Your task to perform on an android device: Find coffee shops on Maps Image 0: 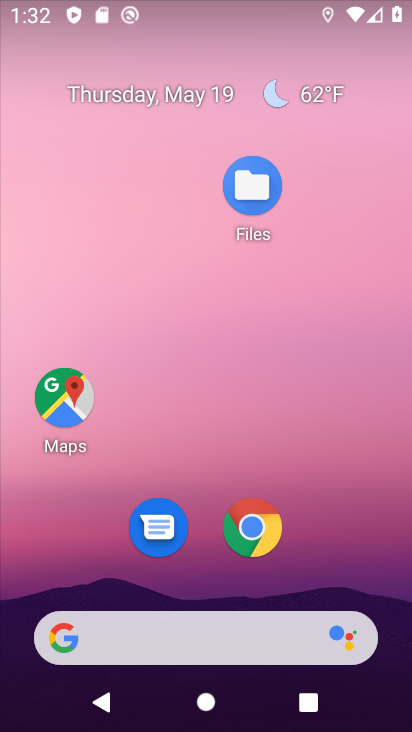
Step 0: drag from (361, 540) to (354, 104)
Your task to perform on an android device: Find coffee shops on Maps Image 1: 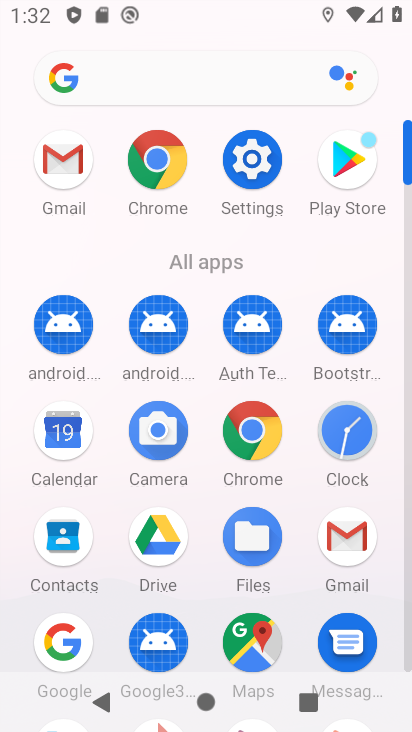
Step 1: click (250, 637)
Your task to perform on an android device: Find coffee shops on Maps Image 2: 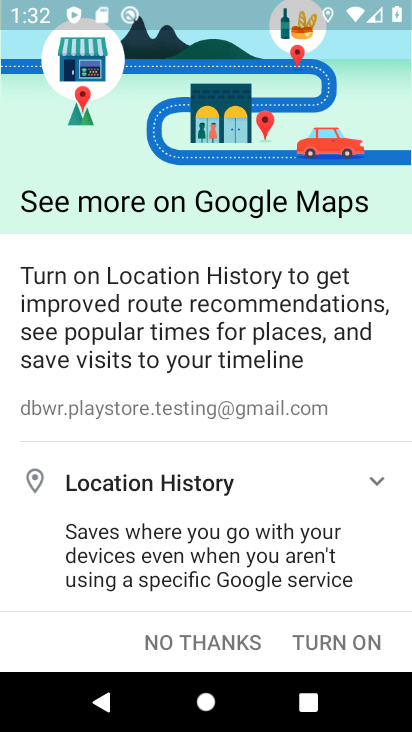
Step 2: click (182, 636)
Your task to perform on an android device: Find coffee shops on Maps Image 3: 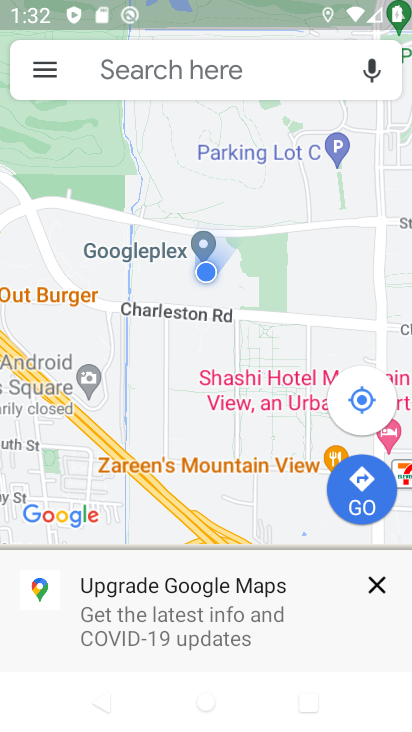
Step 3: click (233, 65)
Your task to perform on an android device: Find coffee shops on Maps Image 4: 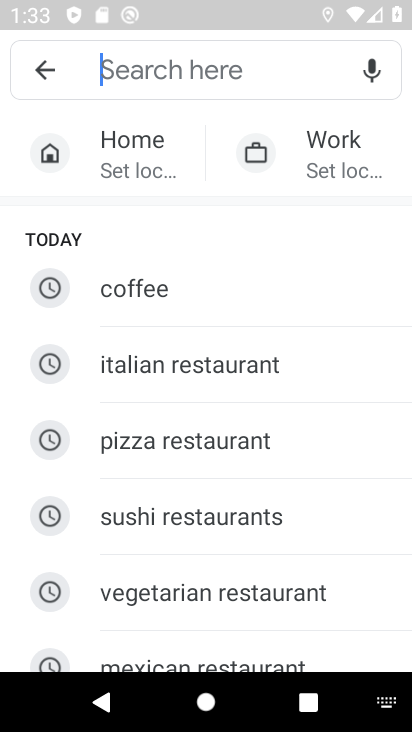
Step 4: type "coffee shops"
Your task to perform on an android device: Find coffee shops on Maps Image 5: 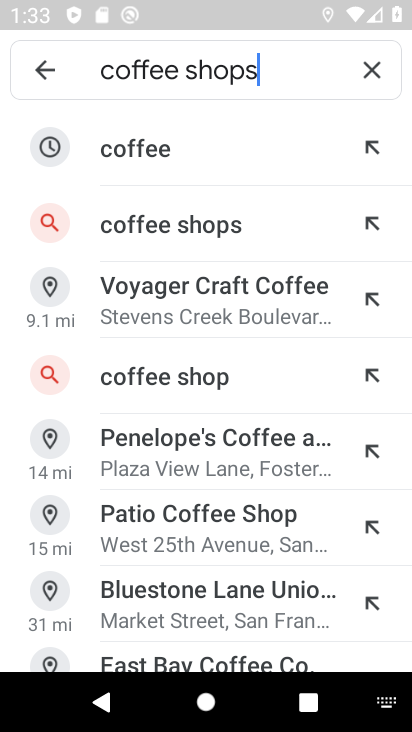
Step 5: click (219, 219)
Your task to perform on an android device: Find coffee shops on Maps Image 6: 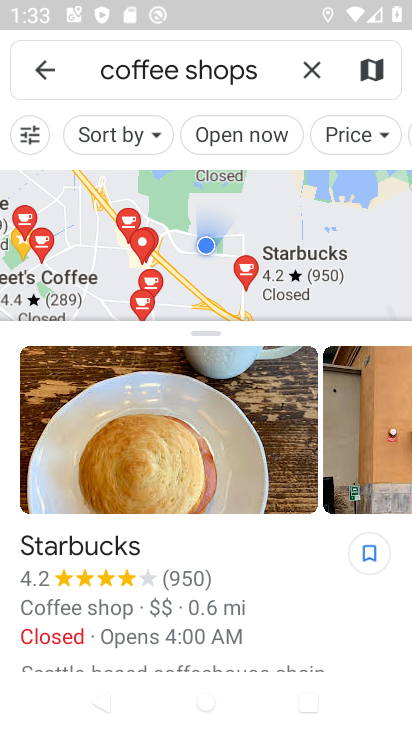
Step 6: task complete